Your task to perform on an android device: Go to settings Image 0: 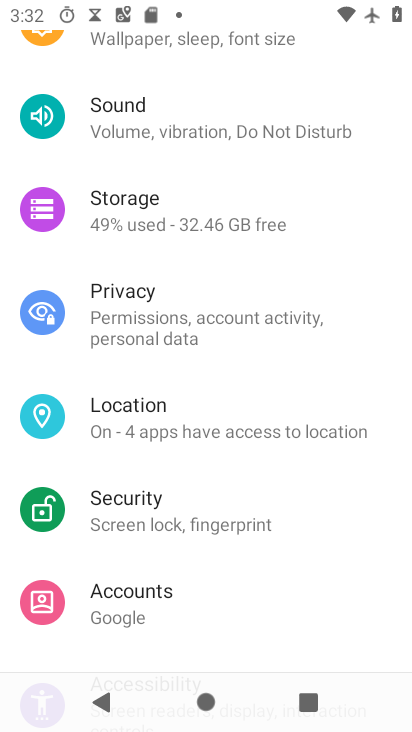
Step 0: press home button
Your task to perform on an android device: Go to settings Image 1: 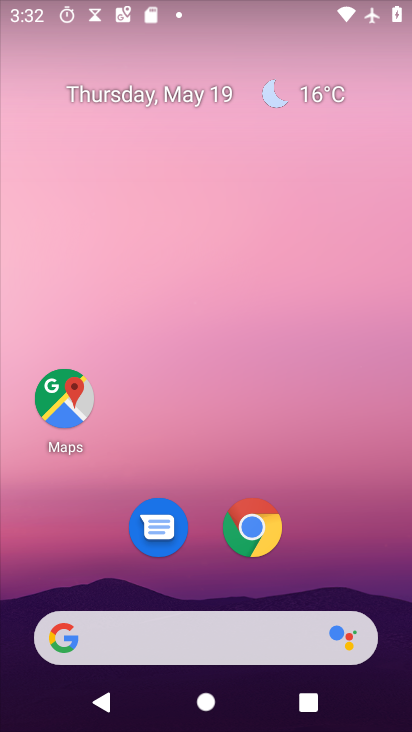
Step 1: drag from (293, 434) to (221, 30)
Your task to perform on an android device: Go to settings Image 2: 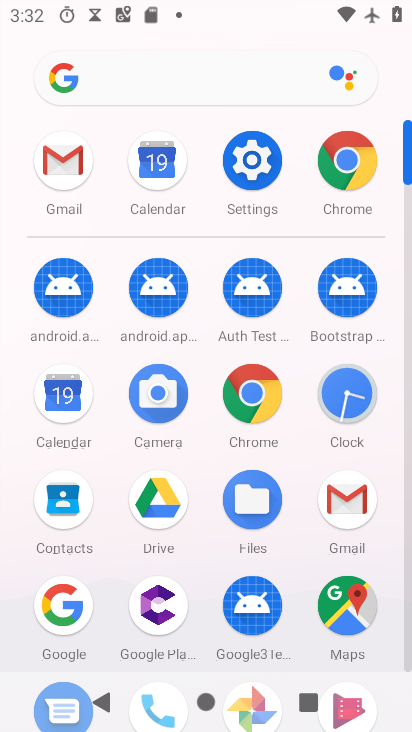
Step 2: click (258, 147)
Your task to perform on an android device: Go to settings Image 3: 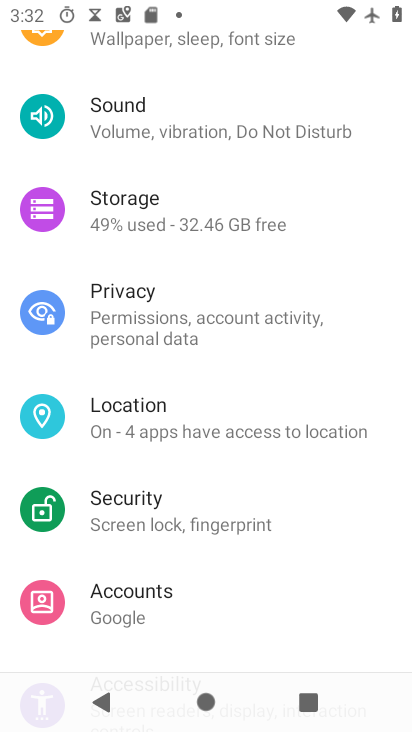
Step 3: task complete